Your task to perform on an android device: Go to battery settings Image 0: 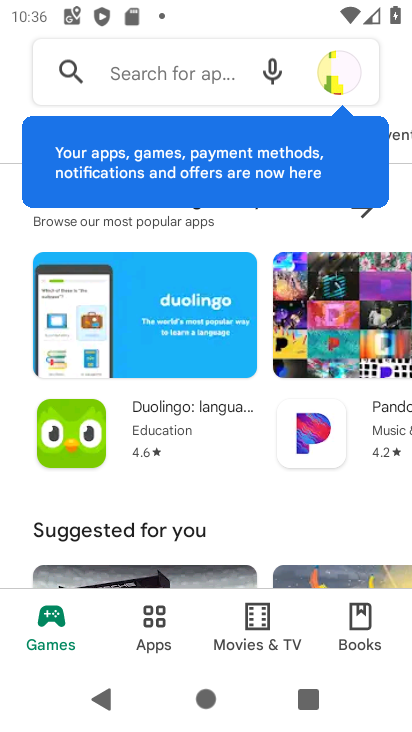
Step 0: press home button
Your task to perform on an android device: Go to battery settings Image 1: 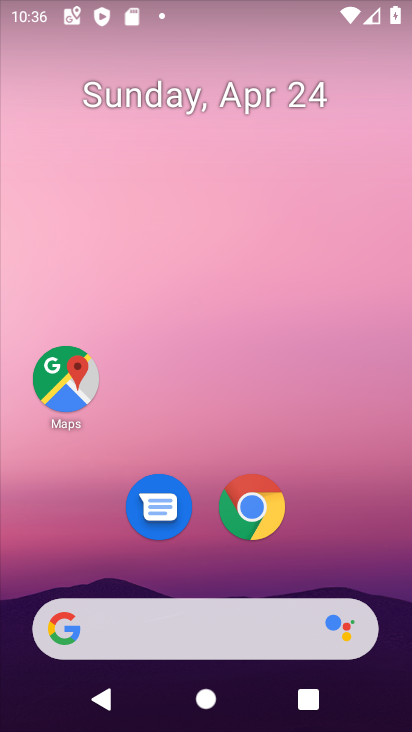
Step 1: drag from (383, 510) to (316, 75)
Your task to perform on an android device: Go to battery settings Image 2: 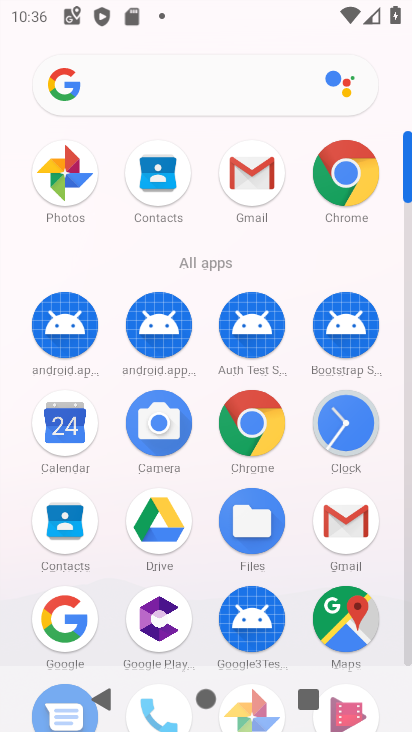
Step 2: drag from (197, 237) to (179, 64)
Your task to perform on an android device: Go to battery settings Image 3: 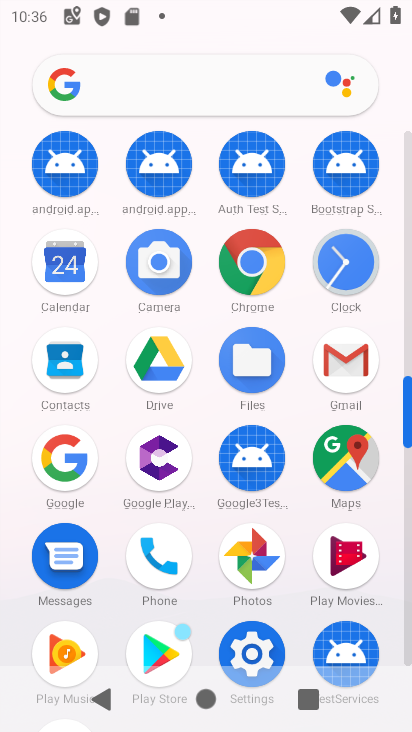
Step 3: click (251, 632)
Your task to perform on an android device: Go to battery settings Image 4: 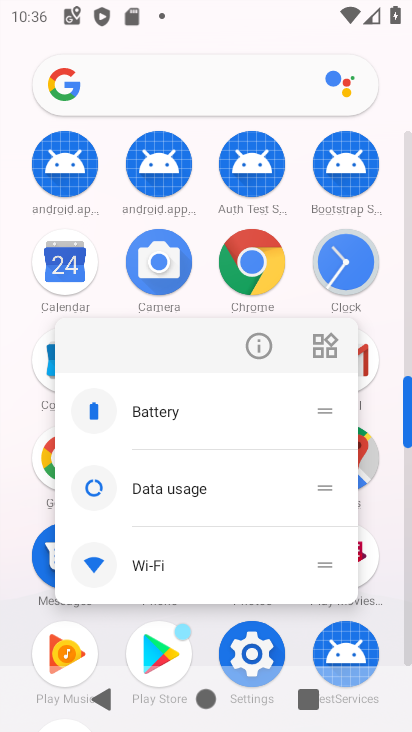
Step 4: click (255, 638)
Your task to perform on an android device: Go to battery settings Image 5: 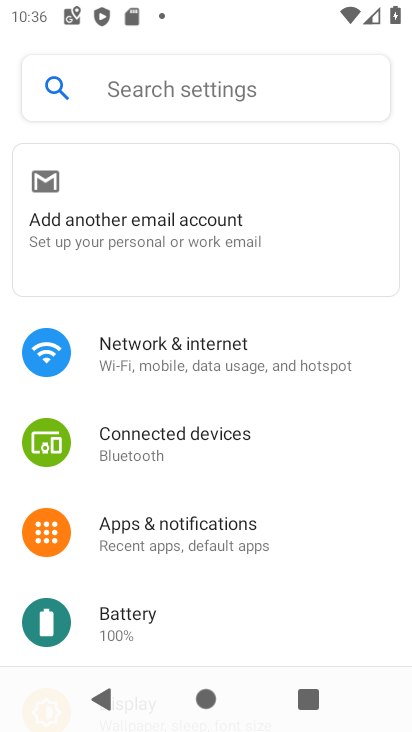
Step 5: click (137, 634)
Your task to perform on an android device: Go to battery settings Image 6: 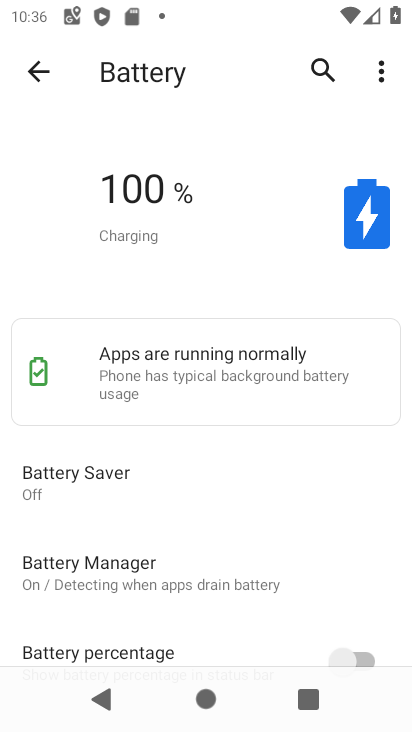
Step 6: task complete